Your task to perform on an android device: check storage Image 0: 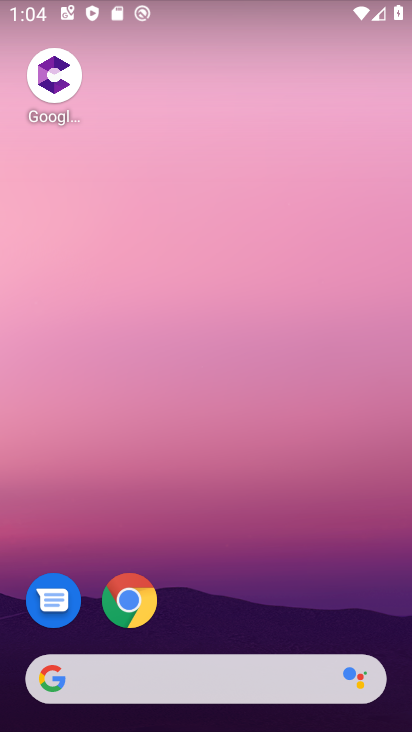
Step 0: drag from (204, 730) to (205, 54)
Your task to perform on an android device: check storage Image 1: 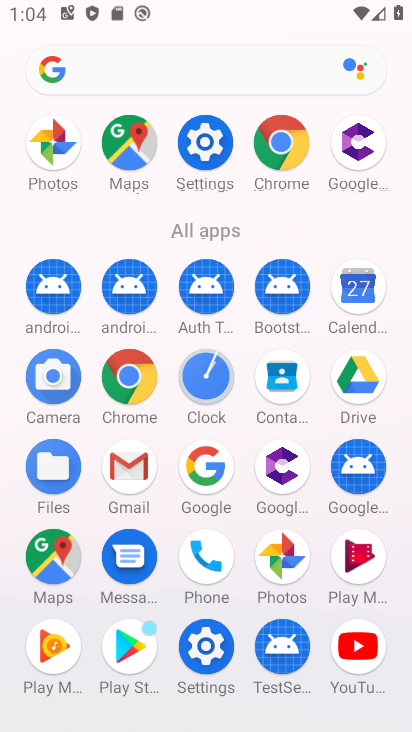
Step 1: click (205, 139)
Your task to perform on an android device: check storage Image 2: 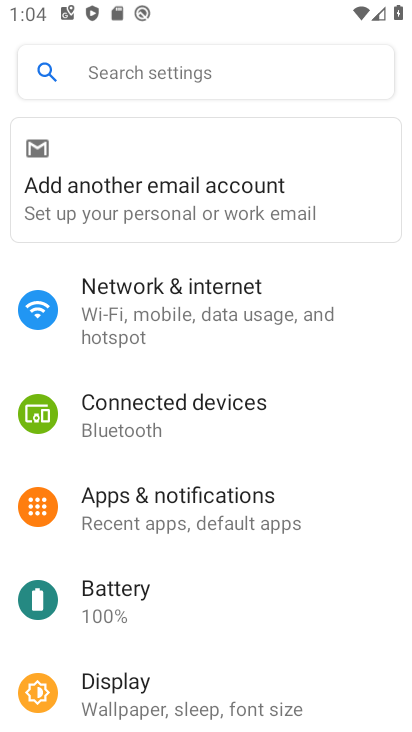
Step 2: drag from (181, 667) to (179, 230)
Your task to perform on an android device: check storage Image 3: 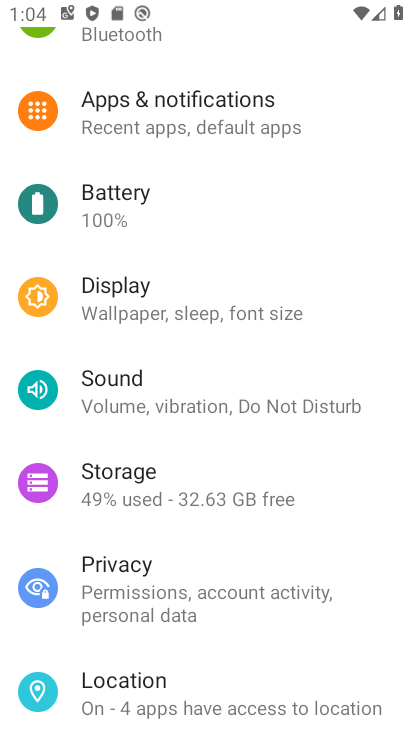
Step 3: click (126, 479)
Your task to perform on an android device: check storage Image 4: 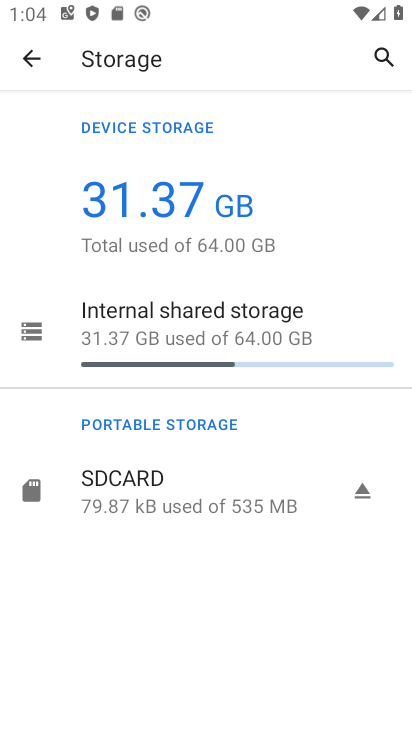
Step 4: task complete